Your task to perform on an android device: turn off translation in the chrome app Image 0: 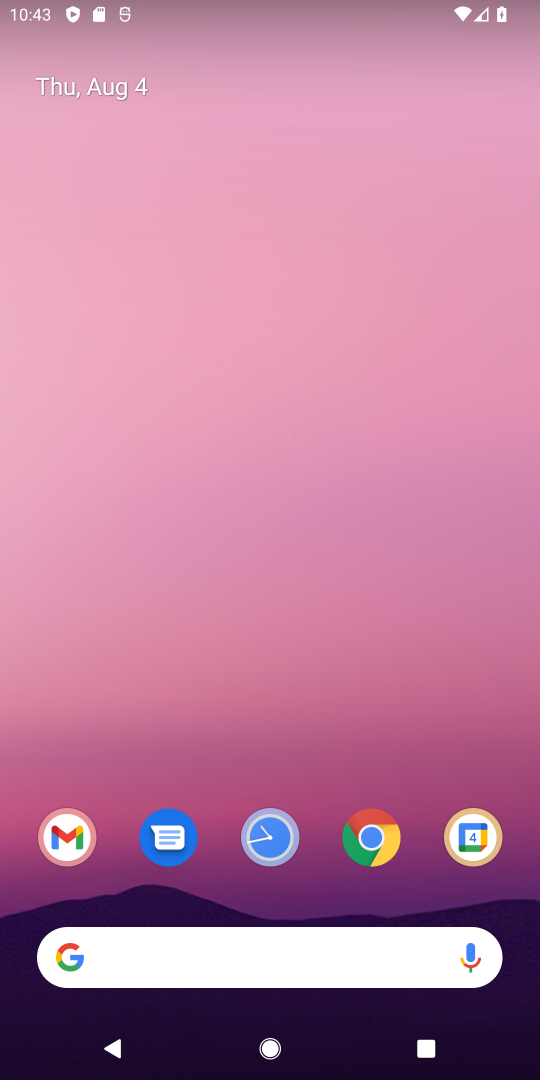
Step 0: drag from (506, 865) to (322, 29)
Your task to perform on an android device: turn off translation in the chrome app Image 1: 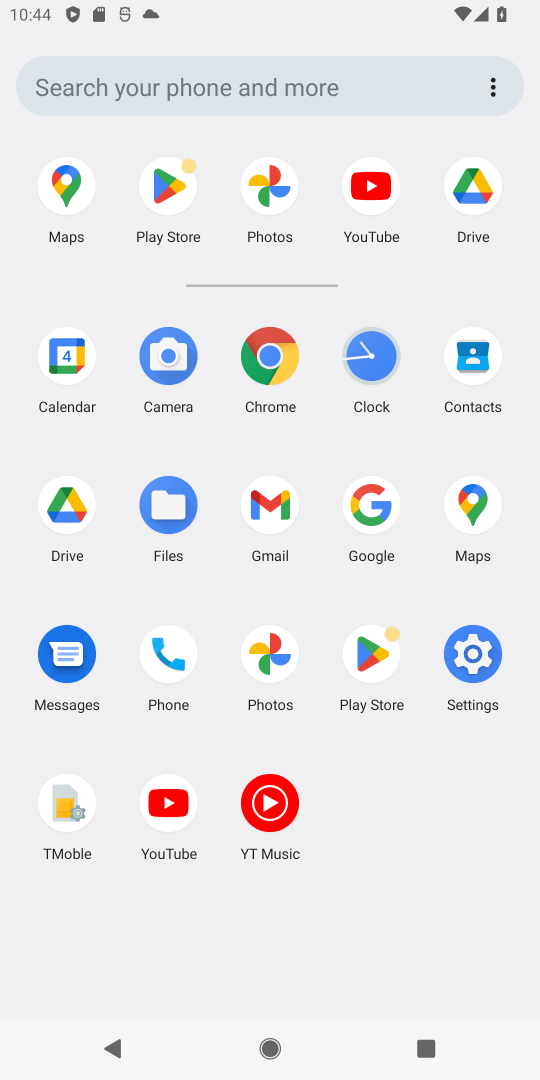
Step 1: click (257, 333)
Your task to perform on an android device: turn off translation in the chrome app Image 2: 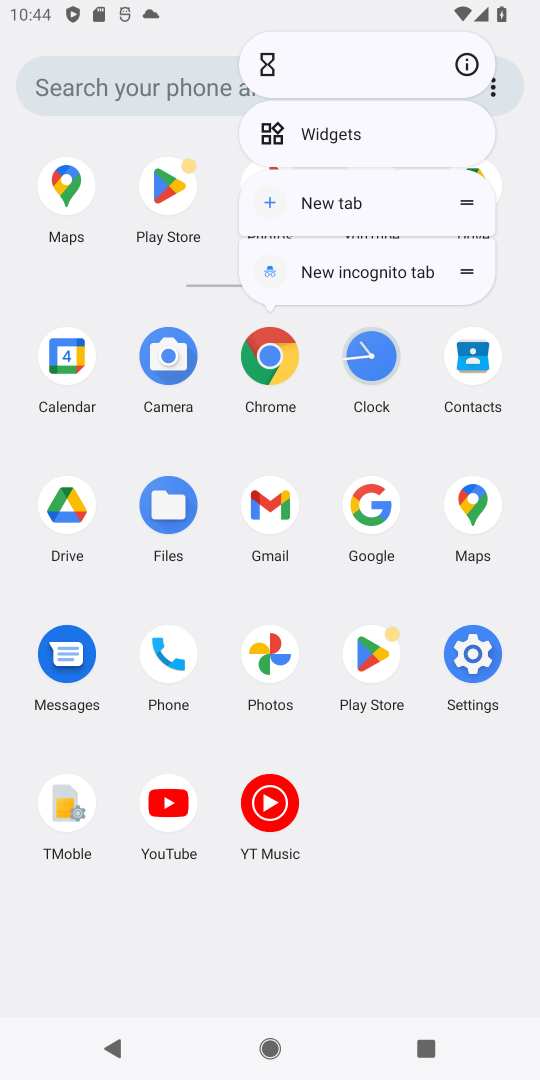
Step 2: click (260, 353)
Your task to perform on an android device: turn off translation in the chrome app Image 3: 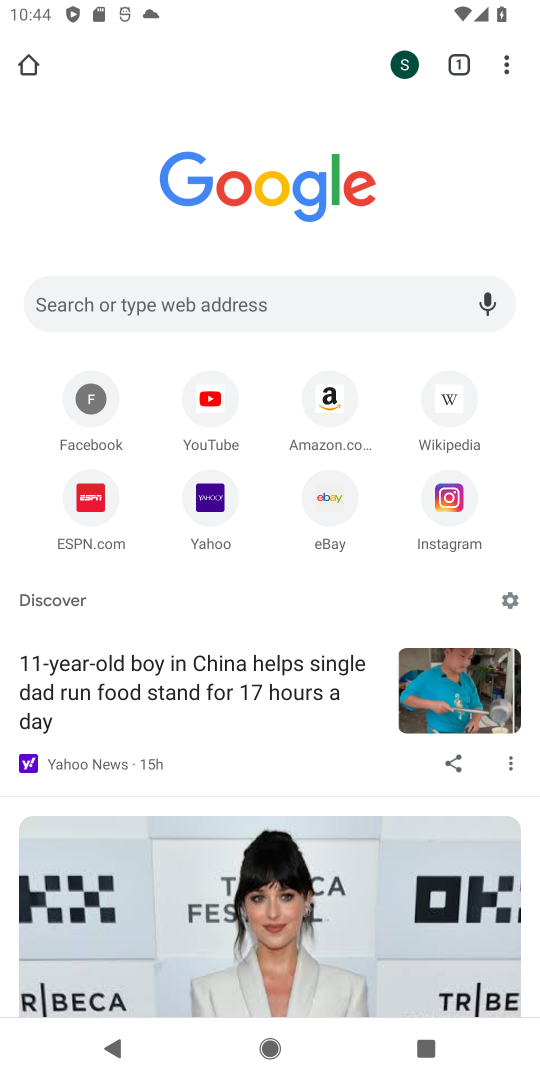
Step 3: click (504, 62)
Your task to perform on an android device: turn off translation in the chrome app Image 4: 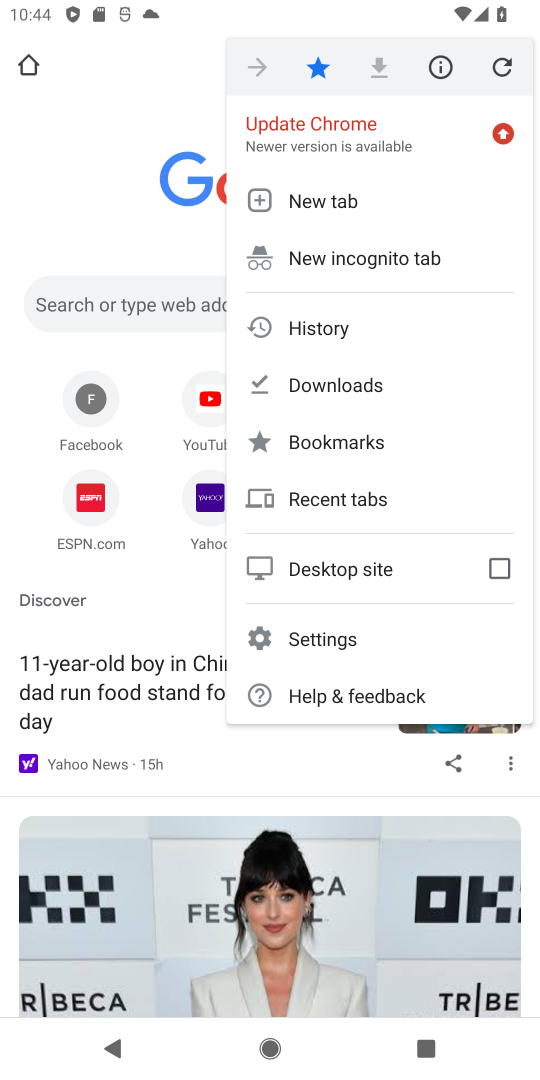
Step 4: click (302, 633)
Your task to perform on an android device: turn off translation in the chrome app Image 5: 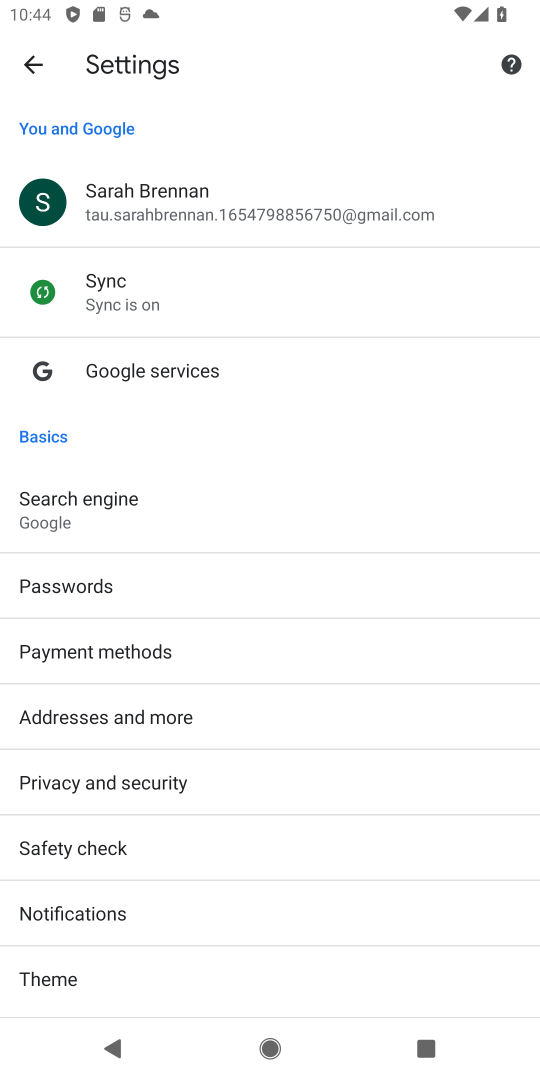
Step 5: drag from (105, 953) to (165, 475)
Your task to perform on an android device: turn off translation in the chrome app Image 6: 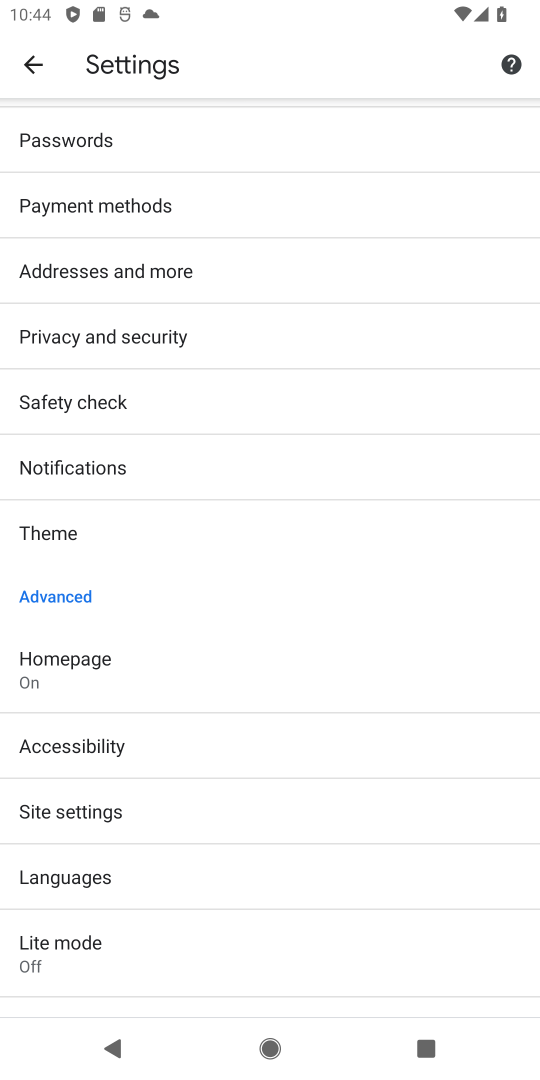
Step 6: click (92, 879)
Your task to perform on an android device: turn off translation in the chrome app Image 7: 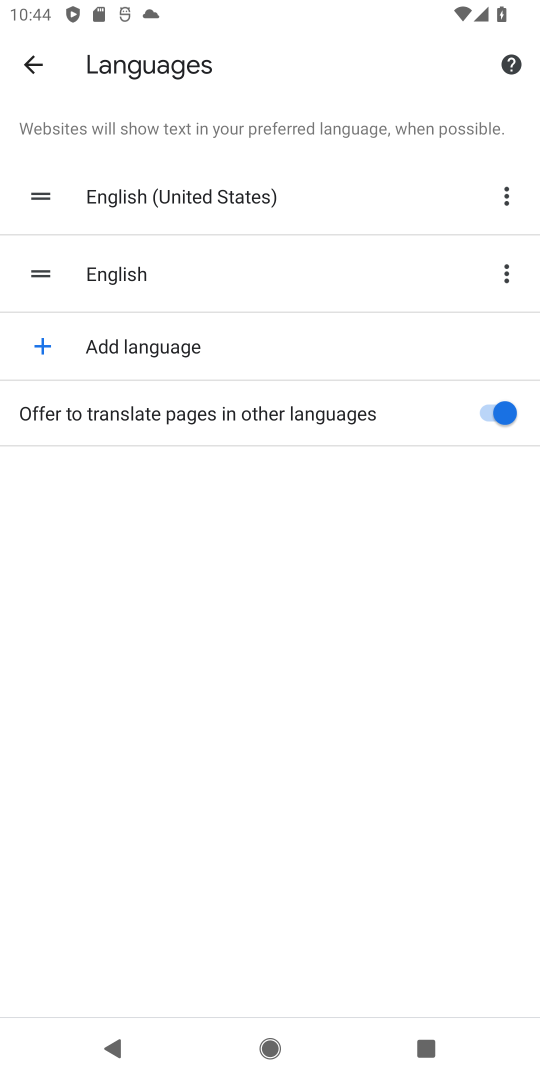
Step 7: click (460, 402)
Your task to perform on an android device: turn off translation in the chrome app Image 8: 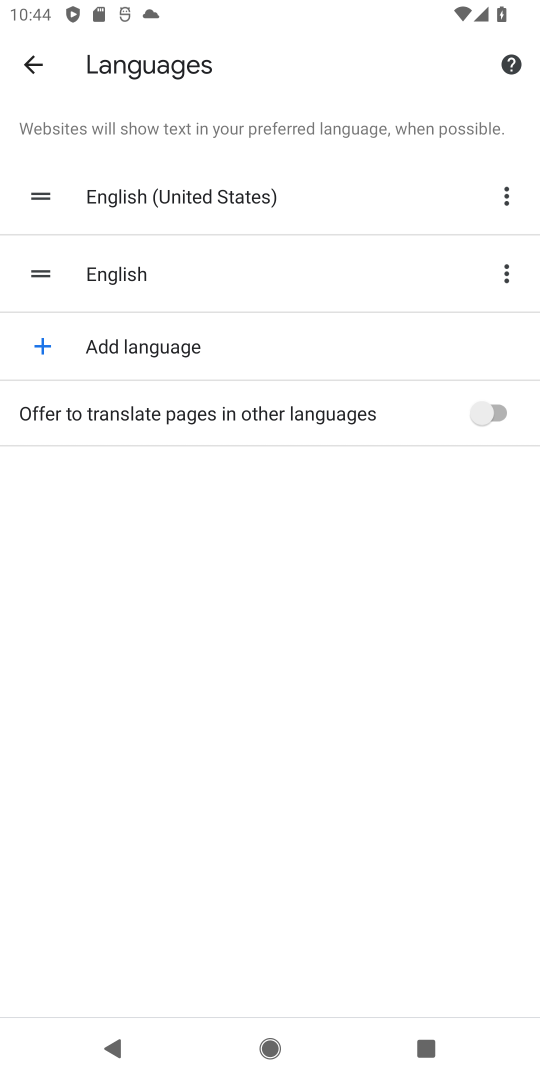
Step 8: task complete